Your task to perform on an android device: set an alarm Image 0: 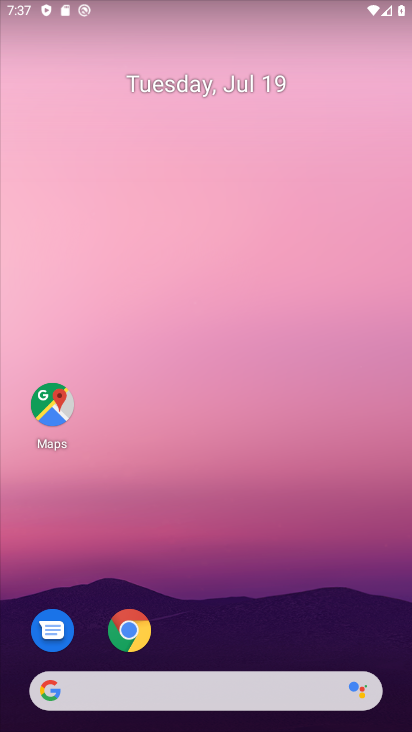
Step 0: drag from (214, 544) to (111, 164)
Your task to perform on an android device: set an alarm Image 1: 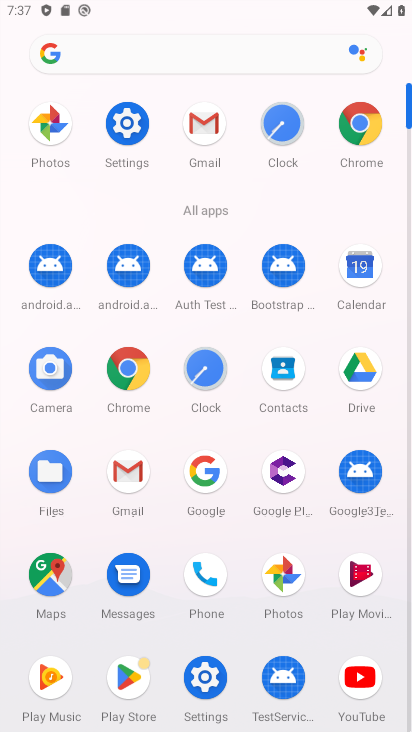
Step 1: click (203, 373)
Your task to perform on an android device: set an alarm Image 2: 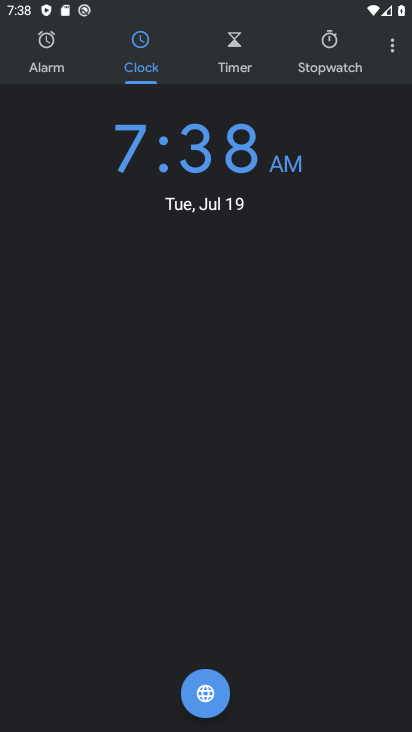
Step 2: click (41, 46)
Your task to perform on an android device: set an alarm Image 3: 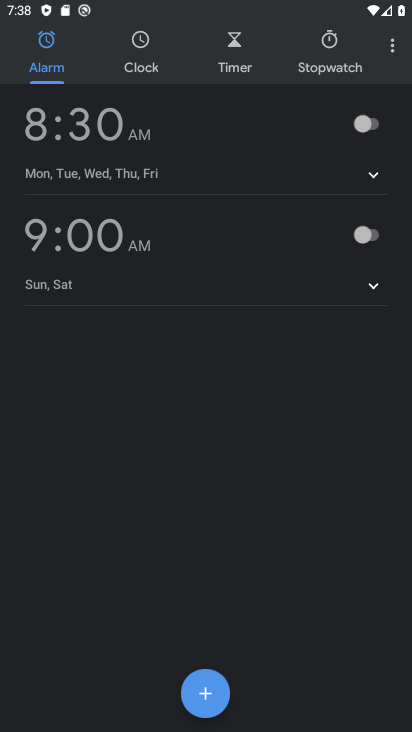
Step 3: click (375, 124)
Your task to perform on an android device: set an alarm Image 4: 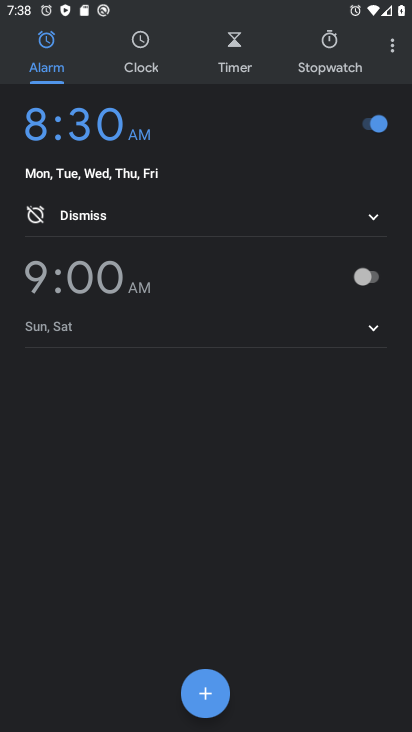
Step 4: task complete